Your task to perform on an android device: toggle show notifications on the lock screen Image 0: 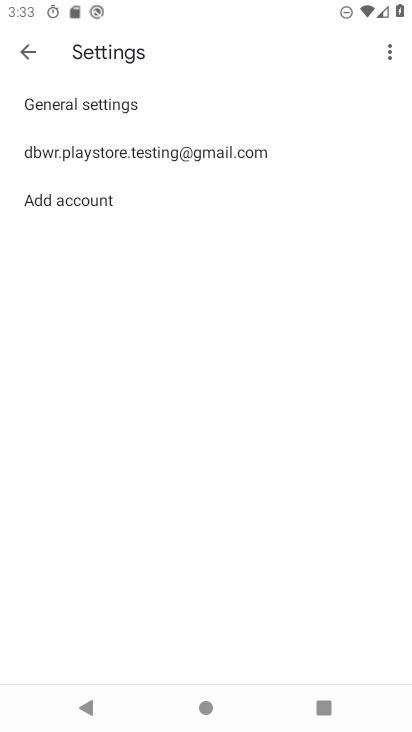
Step 0: press home button
Your task to perform on an android device: toggle show notifications on the lock screen Image 1: 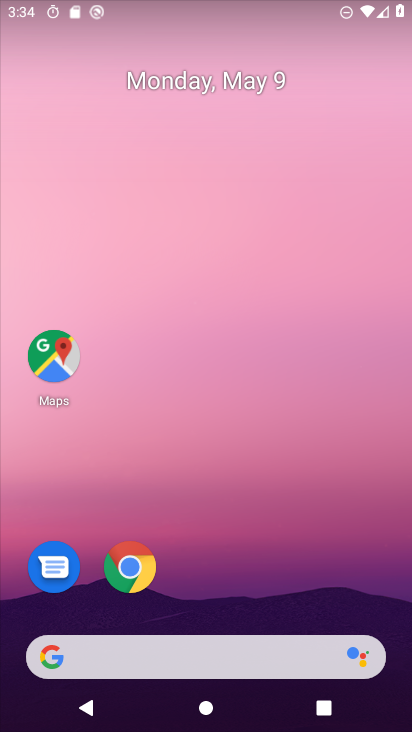
Step 1: drag from (238, 560) to (236, 129)
Your task to perform on an android device: toggle show notifications on the lock screen Image 2: 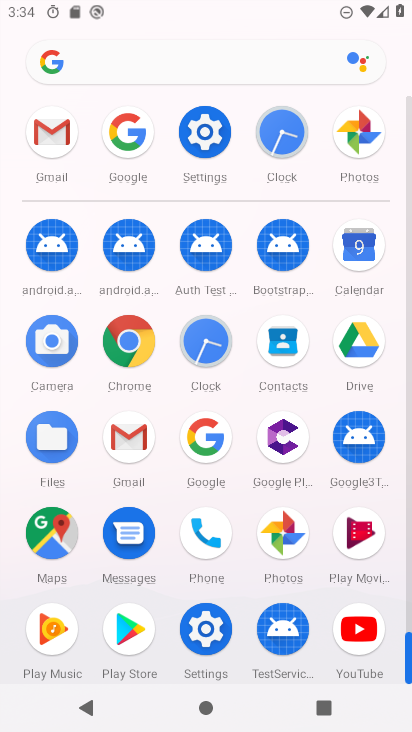
Step 2: click (220, 129)
Your task to perform on an android device: toggle show notifications on the lock screen Image 3: 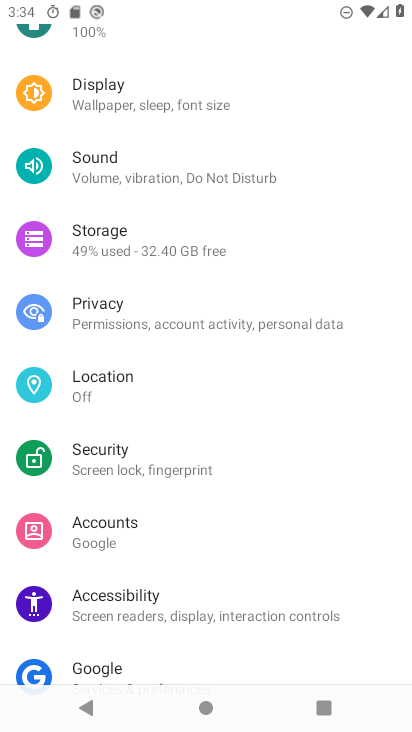
Step 3: drag from (207, 168) to (198, 517)
Your task to perform on an android device: toggle show notifications on the lock screen Image 4: 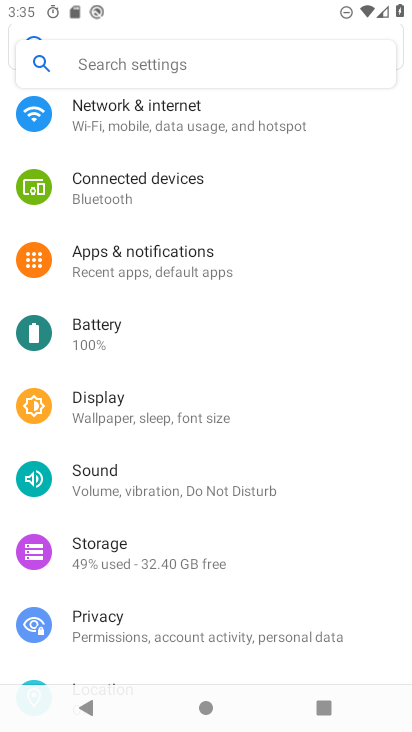
Step 4: click (183, 268)
Your task to perform on an android device: toggle show notifications on the lock screen Image 5: 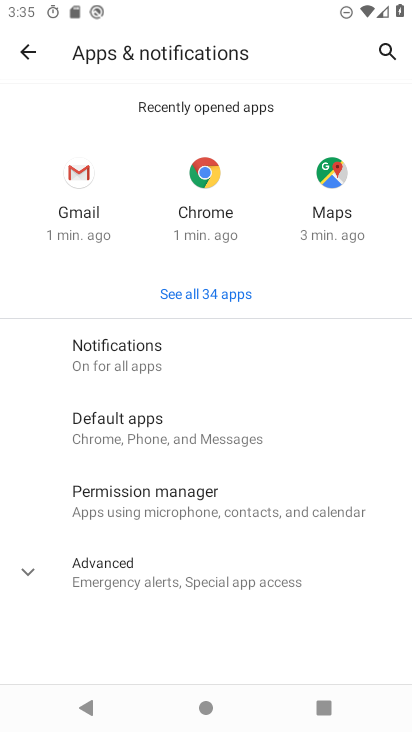
Step 5: click (158, 349)
Your task to perform on an android device: toggle show notifications on the lock screen Image 6: 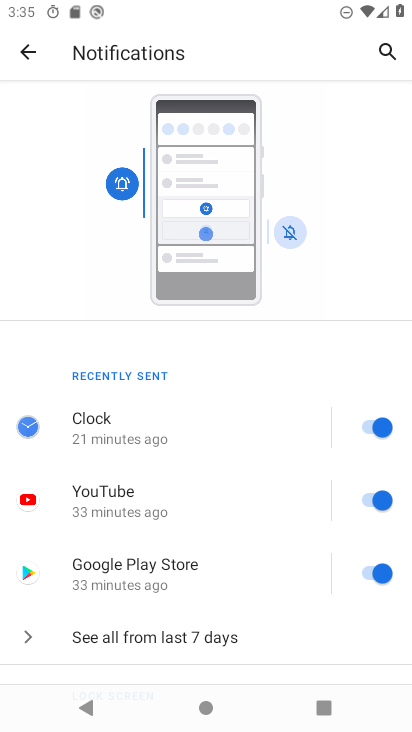
Step 6: drag from (200, 626) to (206, 293)
Your task to perform on an android device: toggle show notifications on the lock screen Image 7: 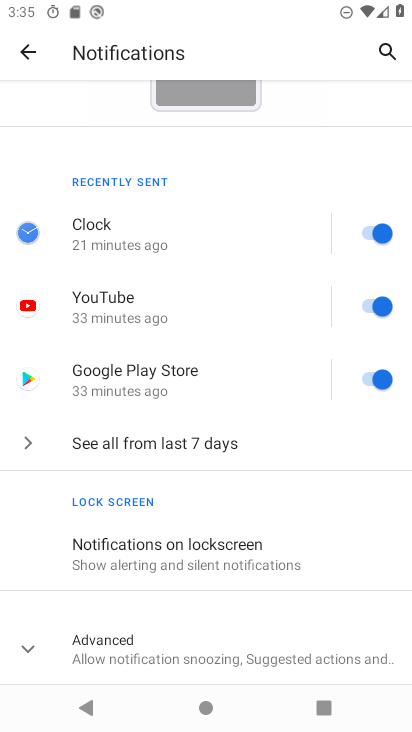
Step 7: click (205, 562)
Your task to perform on an android device: toggle show notifications on the lock screen Image 8: 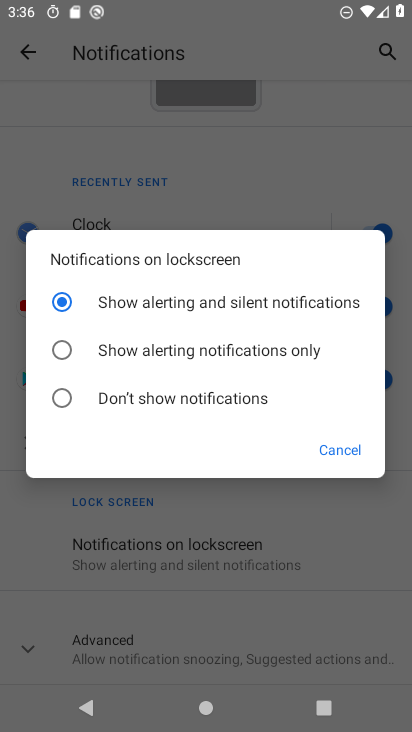
Step 8: click (85, 352)
Your task to perform on an android device: toggle show notifications on the lock screen Image 9: 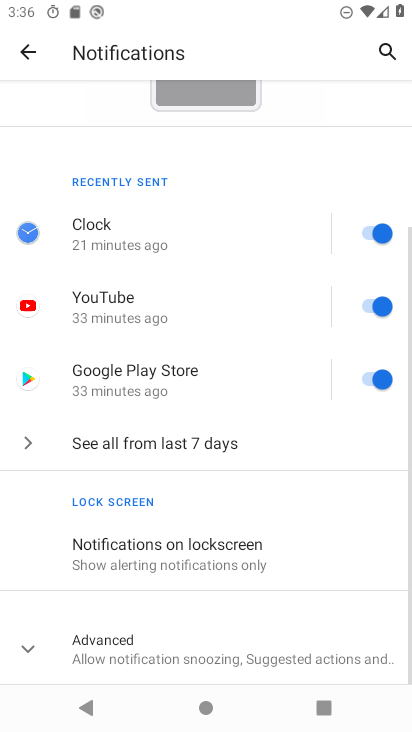
Step 9: task complete